Your task to perform on an android device: open sync settings in chrome Image 0: 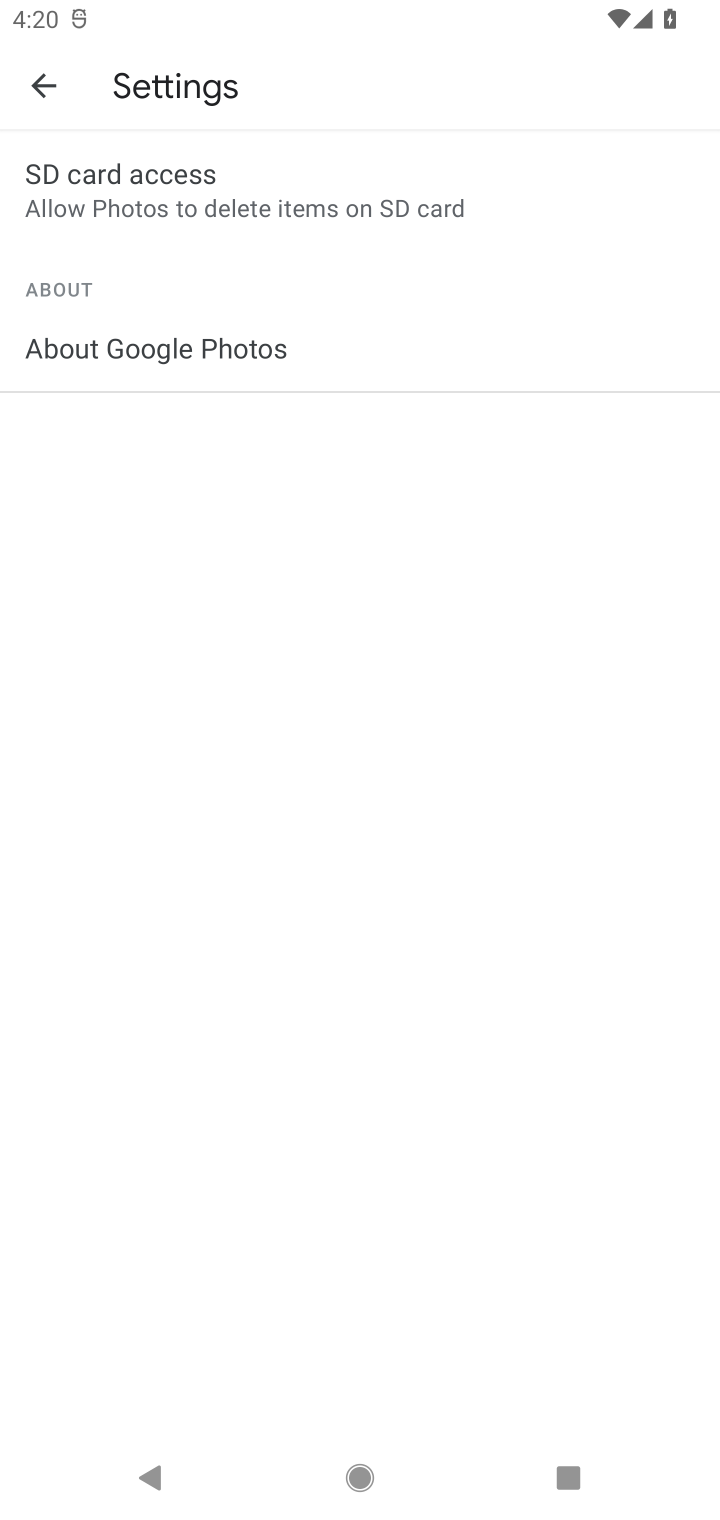
Step 0: press home button
Your task to perform on an android device: open sync settings in chrome Image 1: 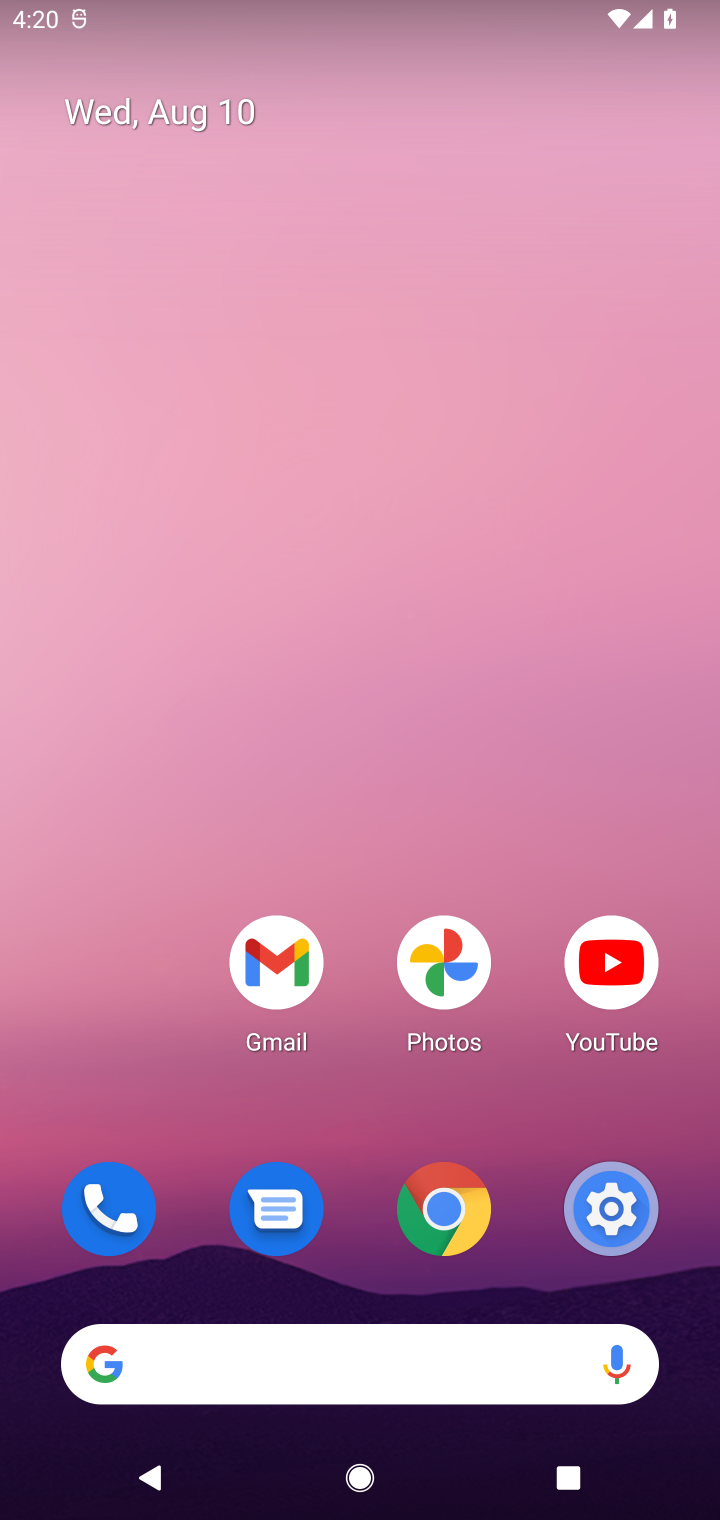
Step 1: click (442, 1224)
Your task to perform on an android device: open sync settings in chrome Image 2: 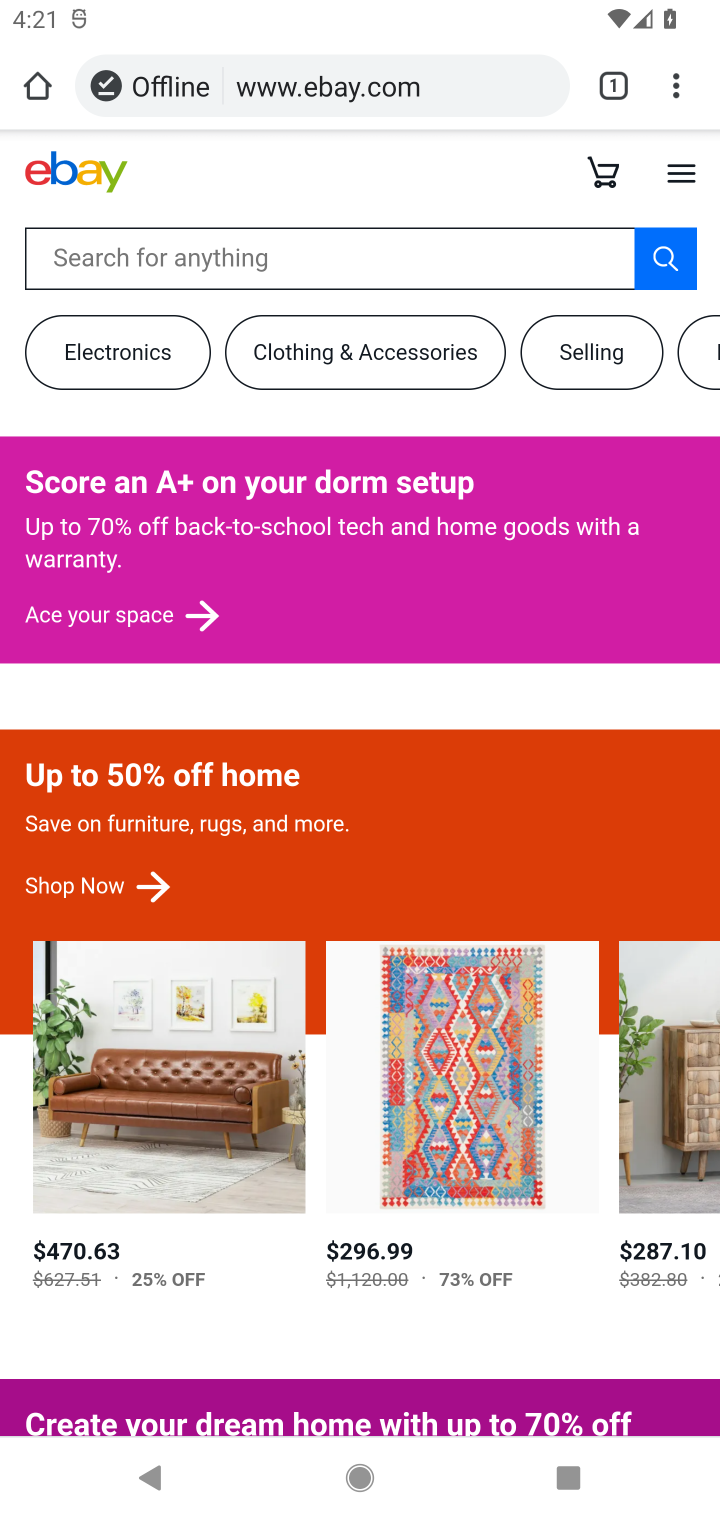
Step 2: click (664, 86)
Your task to perform on an android device: open sync settings in chrome Image 3: 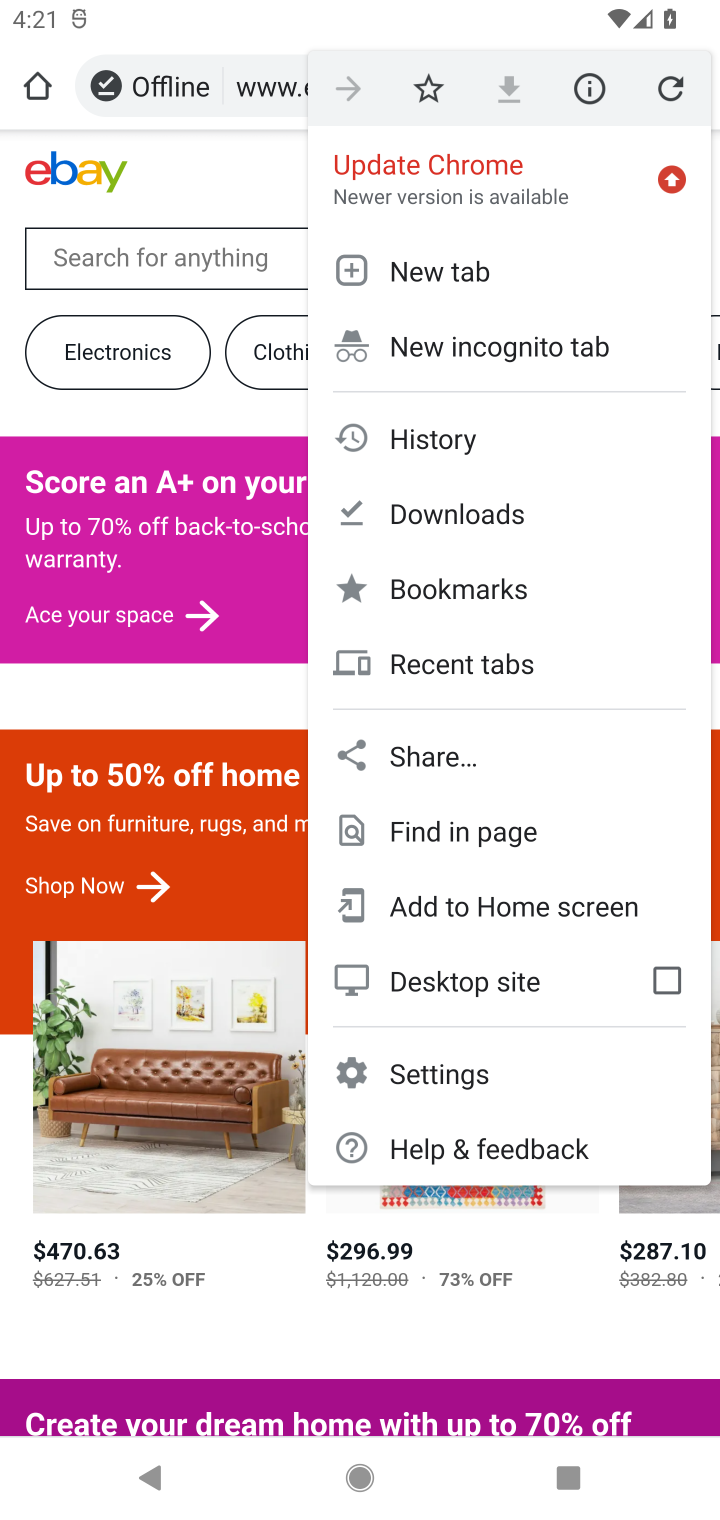
Step 3: click (434, 1069)
Your task to perform on an android device: open sync settings in chrome Image 4: 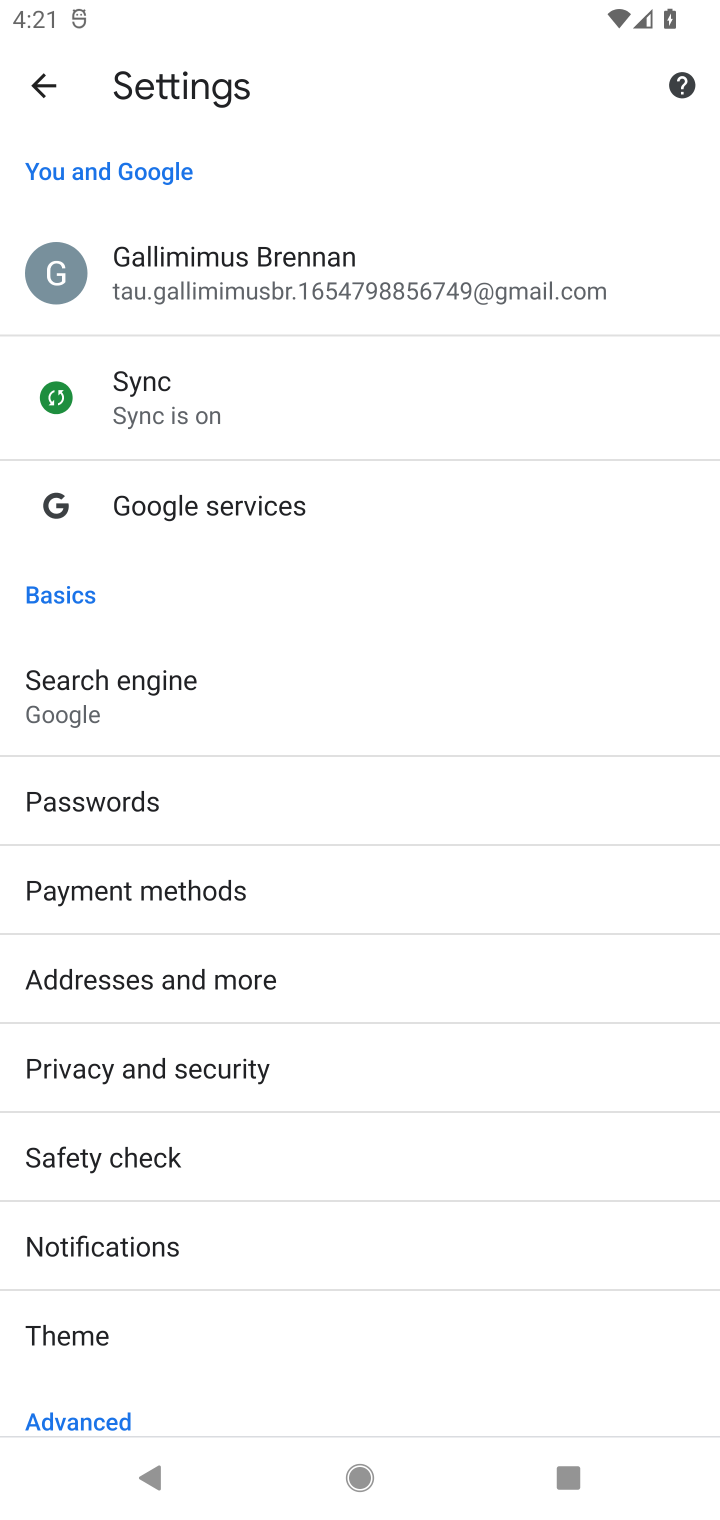
Step 4: click (273, 377)
Your task to perform on an android device: open sync settings in chrome Image 5: 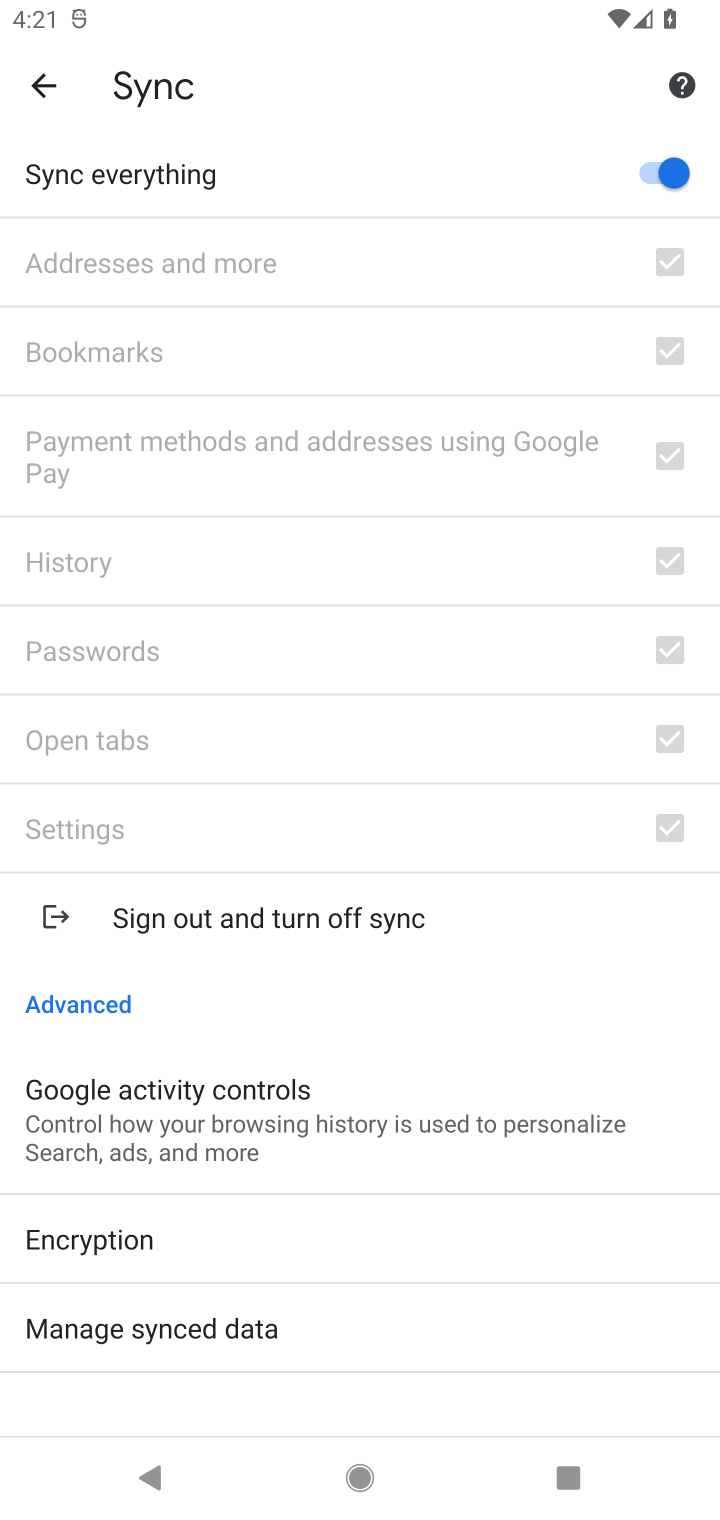
Step 5: task complete